Your task to perform on an android device: toggle sleep mode Image 0: 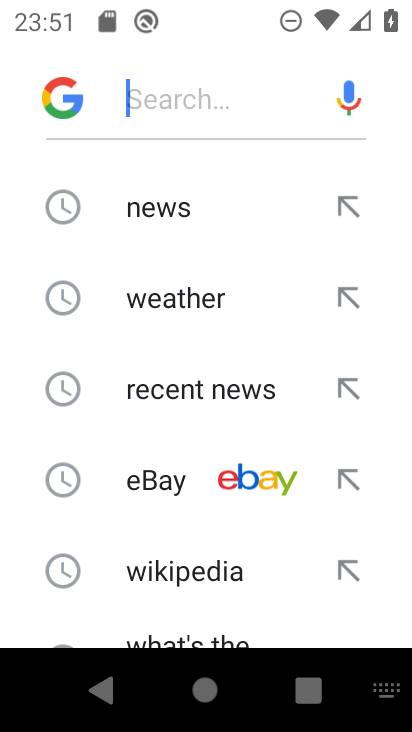
Step 0: press home button
Your task to perform on an android device: toggle sleep mode Image 1: 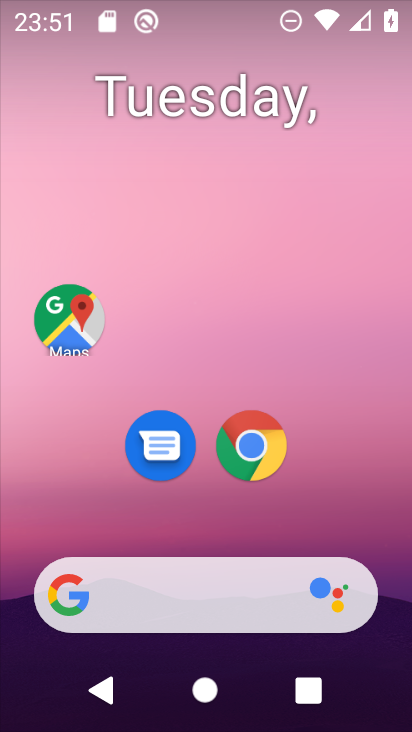
Step 1: drag from (283, 516) to (393, 43)
Your task to perform on an android device: toggle sleep mode Image 2: 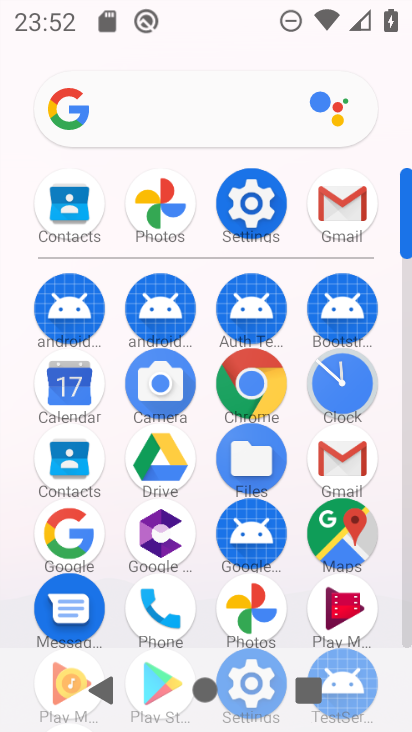
Step 2: click (249, 199)
Your task to perform on an android device: toggle sleep mode Image 3: 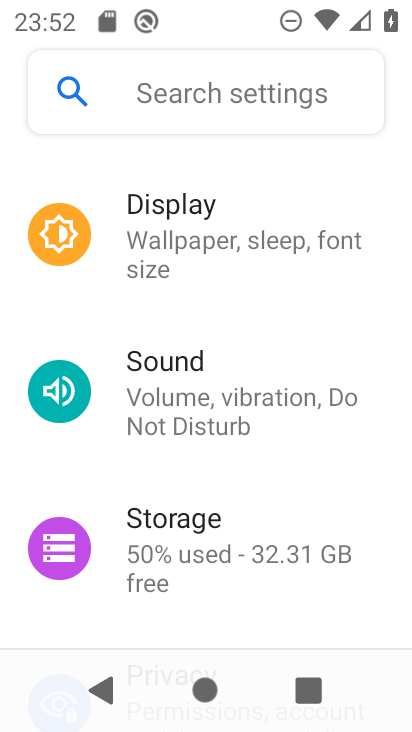
Step 3: task complete